Your task to perform on an android device: change your default location settings in chrome Image 0: 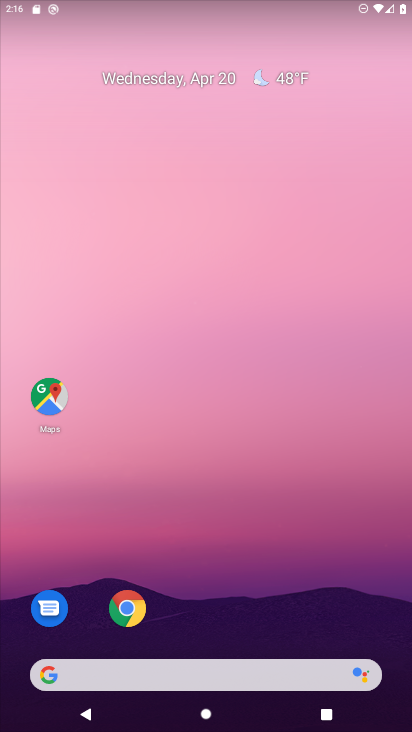
Step 0: click (127, 612)
Your task to perform on an android device: change your default location settings in chrome Image 1: 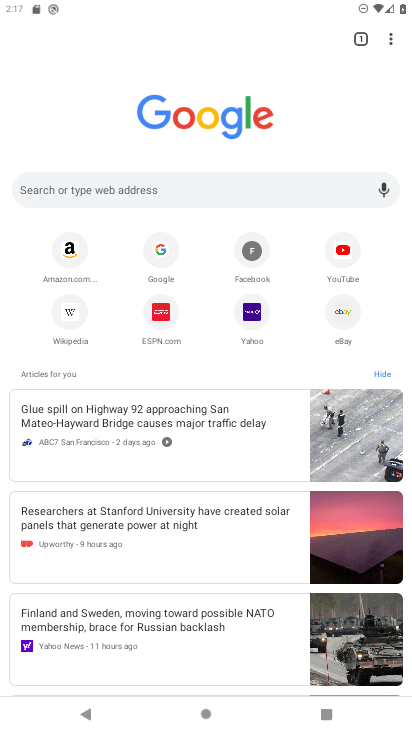
Step 1: click (391, 48)
Your task to perform on an android device: change your default location settings in chrome Image 2: 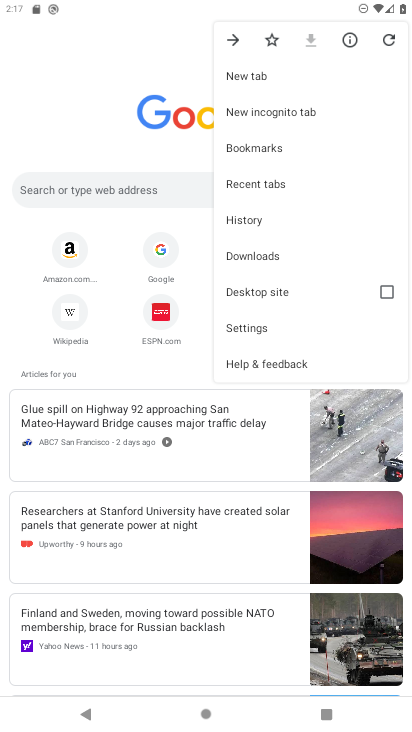
Step 2: click (280, 327)
Your task to perform on an android device: change your default location settings in chrome Image 3: 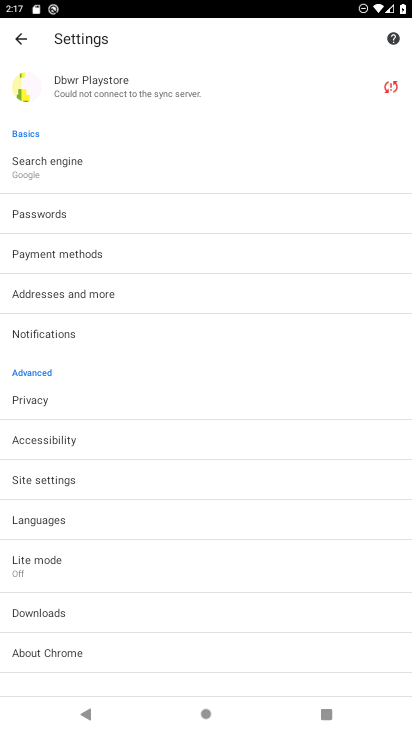
Step 3: click (109, 297)
Your task to perform on an android device: change your default location settings in chrome Image 4: 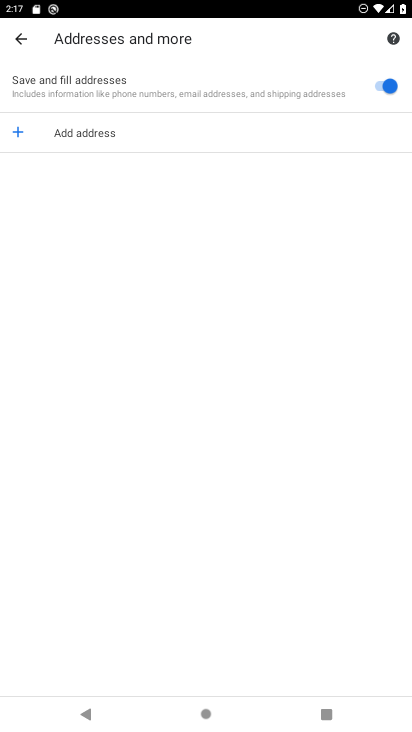
Step 4: task complete